Your task to perform on an android device: Is it going to rain tomorrow? Image 0: 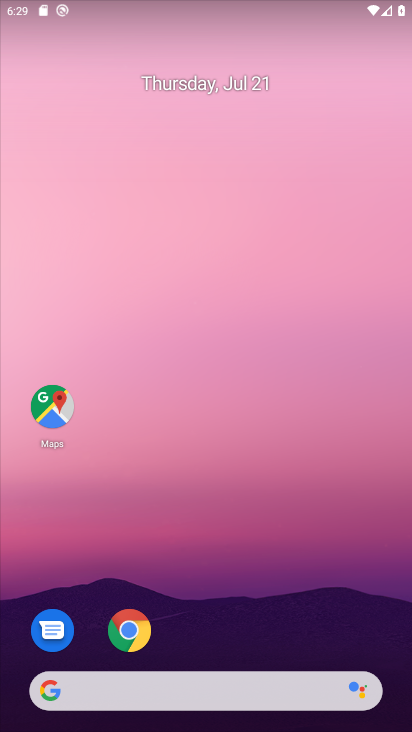
Step 0: drag from (183, 691) to (256, 44)
Your task to perform on an android device: Is it going to rain tomorrow? Image 1: 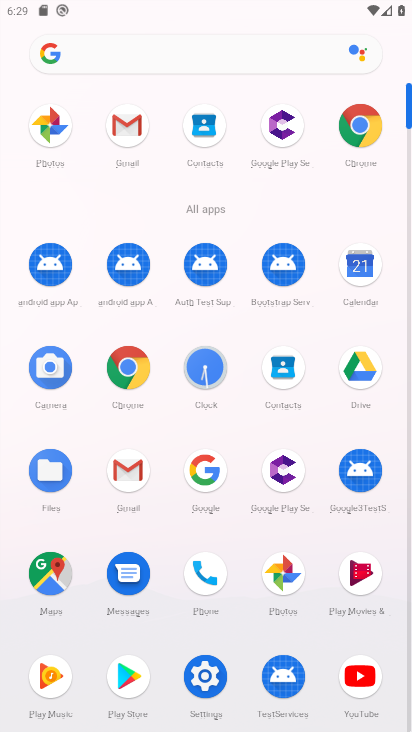
Step 1: click (203, 470)
Your task to perform on an android device: Is it going to rain tomorrow? Image 2: 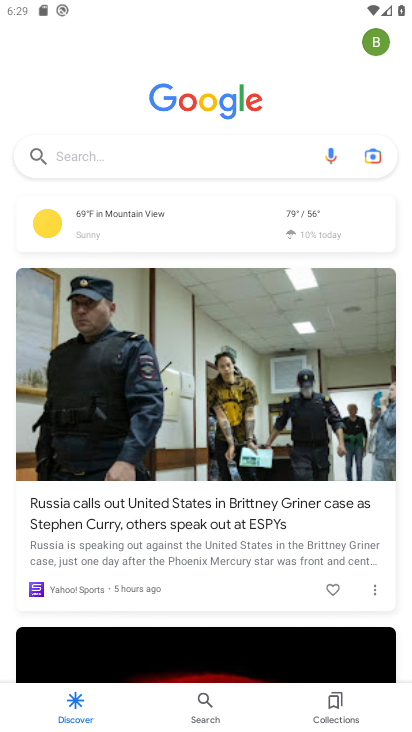
Step 2: click (206, 153)
Your task to perform on an android device: Is it going to rain tomorrow? Image 3: 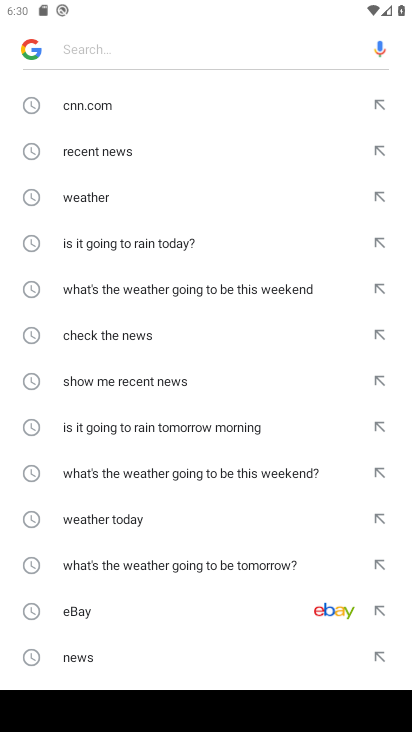
Step 3: type "Is it going to rain tomorrow?"
Your task to perform on an android device: Is it going to rain tomorrow? Image 4: 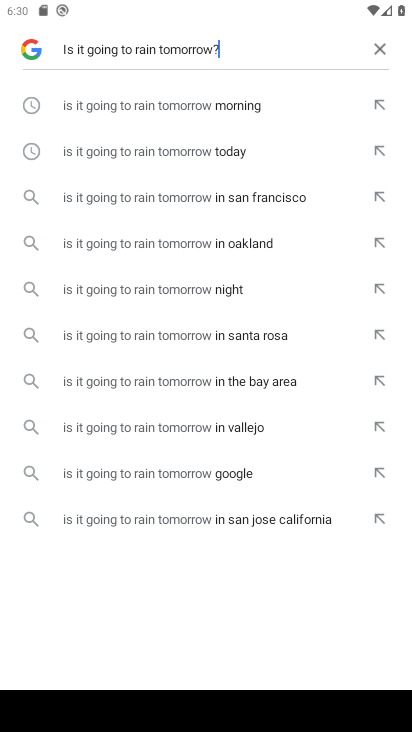
Step 4: click (208, 157)
Your task to perform on an android device: Is it going to rain tomorrow? Image 5: 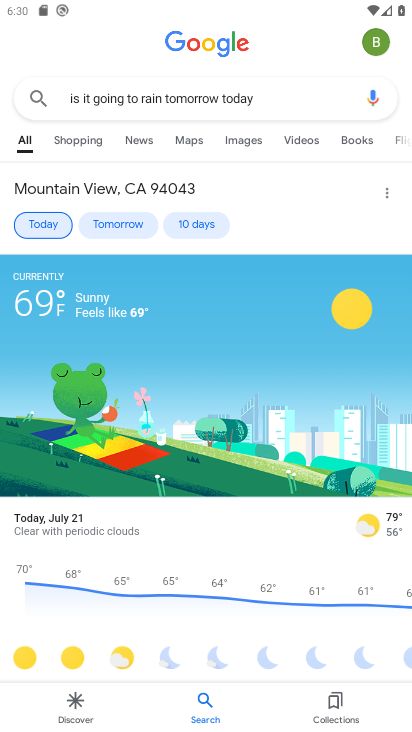
Step 5: click (135, 224)
Your task to perform on an android device: Is it going to rain tomorrow? Image 6: 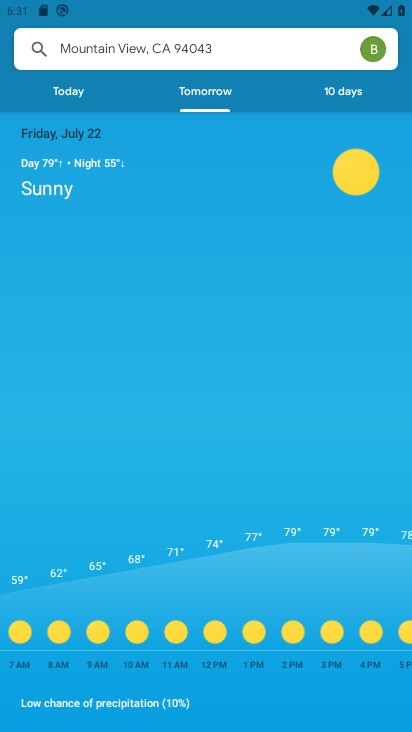
Step 6: task complete